Your task to perform on an android device: toggle location history Image 0: 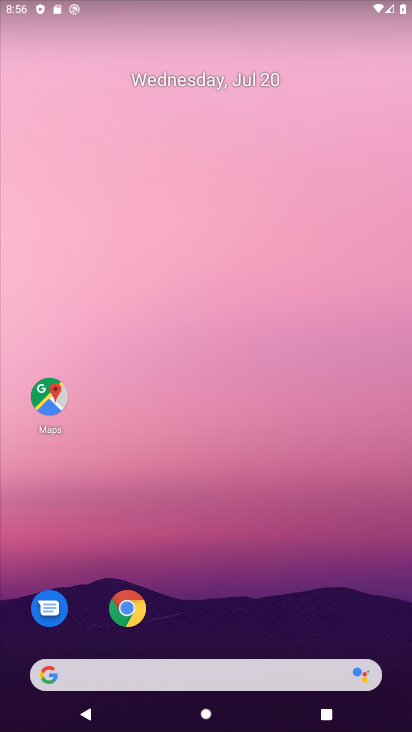
Step 0: drag from (339, 652) to (275, 292)
Your task to perform on an android device: toggle location history Image 1: 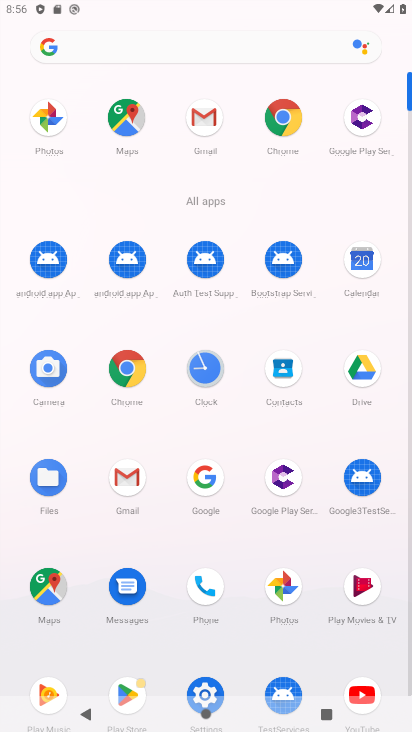
Step 1: click (133, 120)
Your task to perform on an android device: toggle location history Image 2: 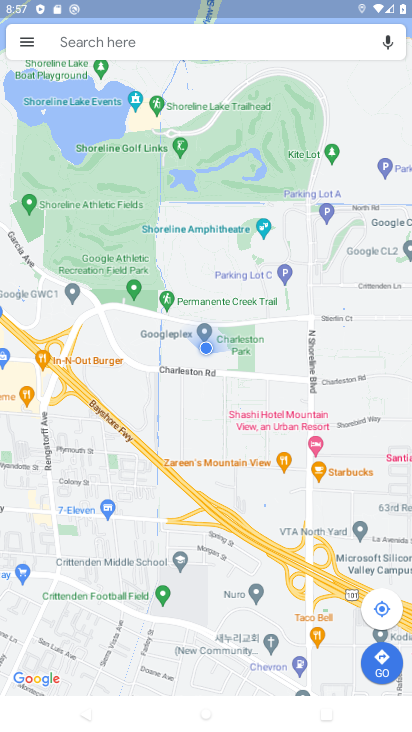
Step 2: click (19, 43)
Your task to perform on an android device: toggle location history Image 3: 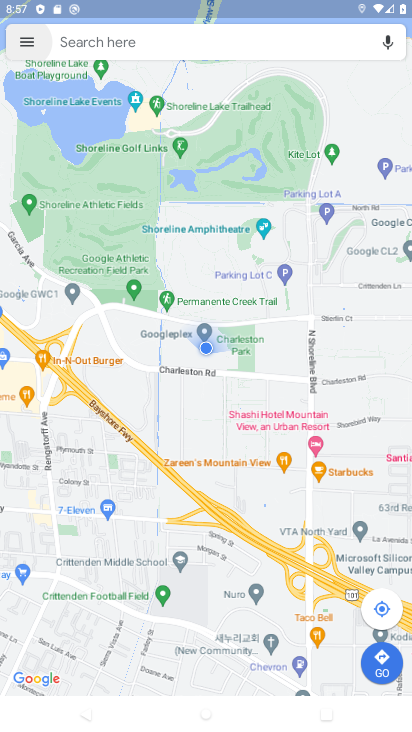
Step 3: click (25, 40)
Your task to perform on an android device: toggle location history Image 4: 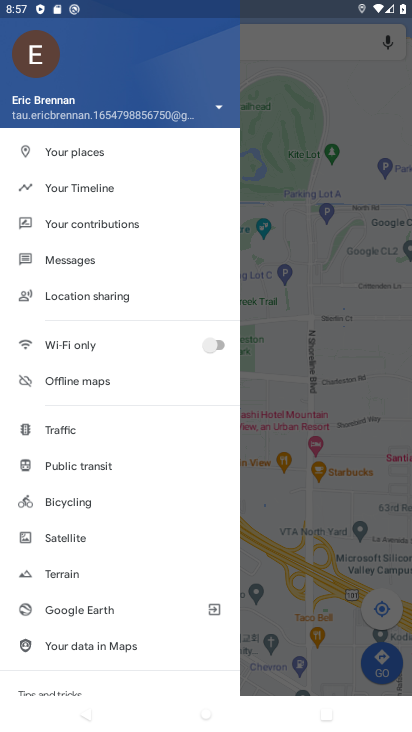
Step 4: click (58, 191)
Your task to perform on an android device: toggle location history Image 5: 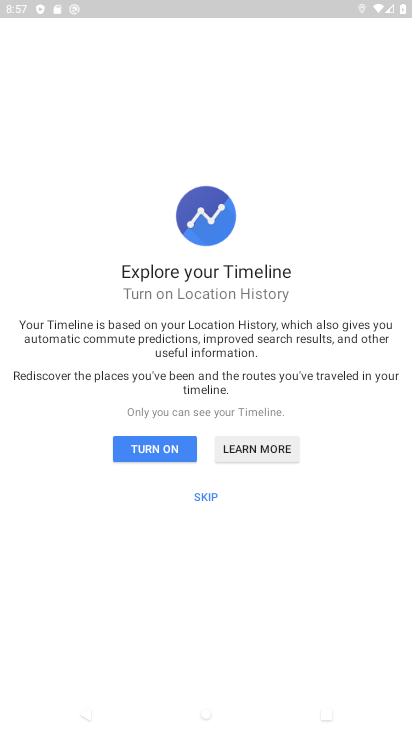
Step 5: click (153, 448)
Your task to perform on an android device: toggle location history Image 6: 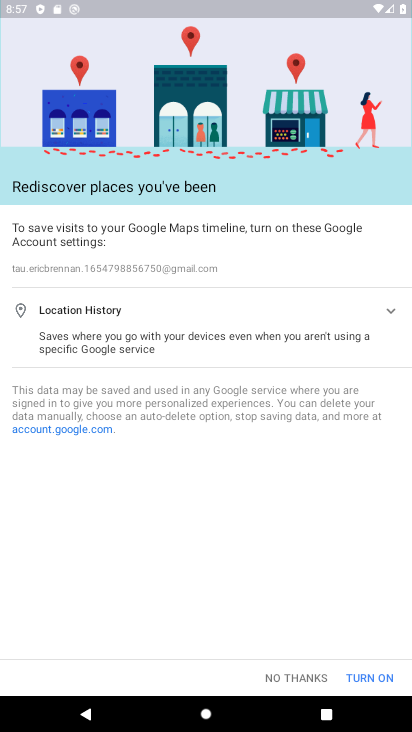
Step 6: click (170, 452)
Your task to perform on an android device: toggle location history Image 7: 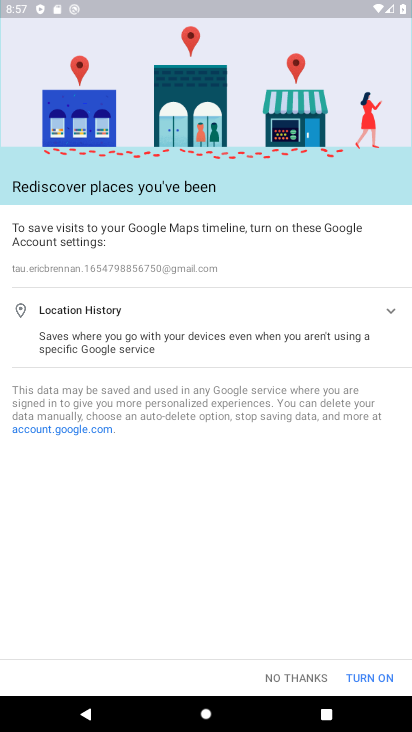
Step 7: click (378, 679)
Your task to perform on an android device: toggle location history Image 8: 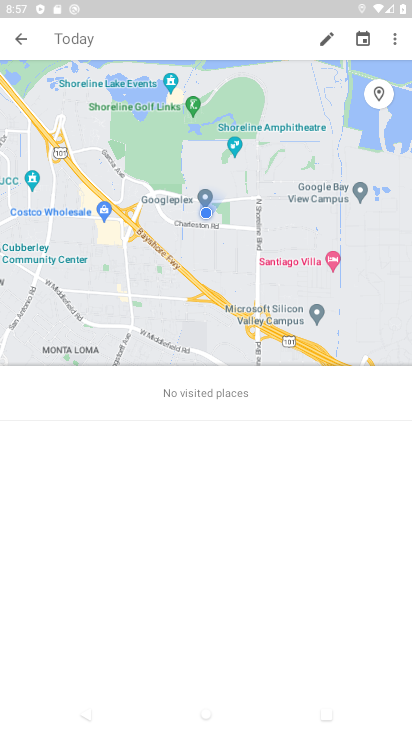
Step 8: task complete